Your task to perform on an android device: turn off picture-in-picture Image 0: 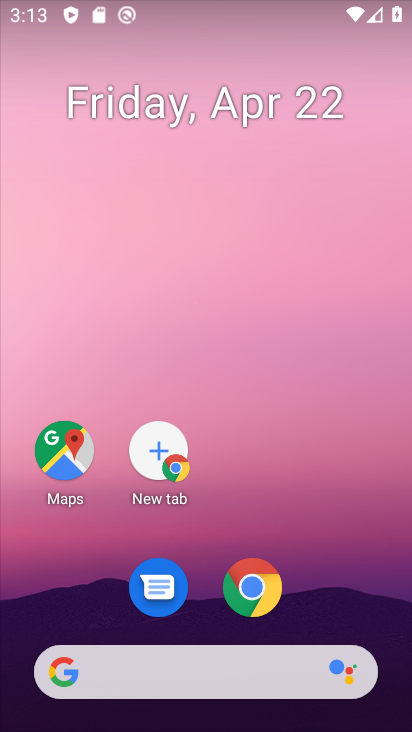
Step 0: click (64, 438)
Your task to perform on an android device: turn off picture-in-picture Image 1: 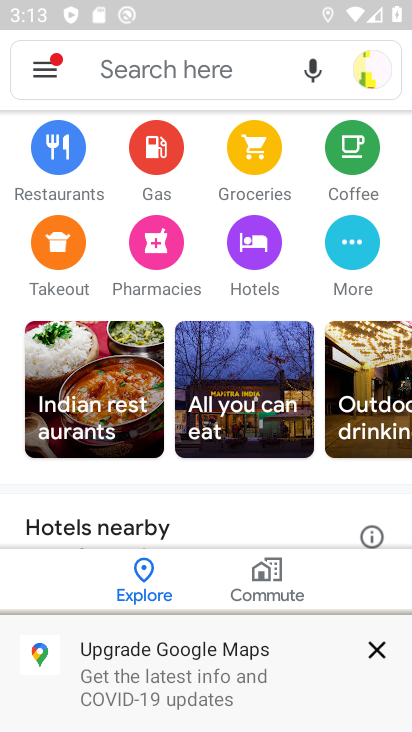
Step 1: press home button
Your task to perform on an android device: turn off picture-in-picture Image 2: 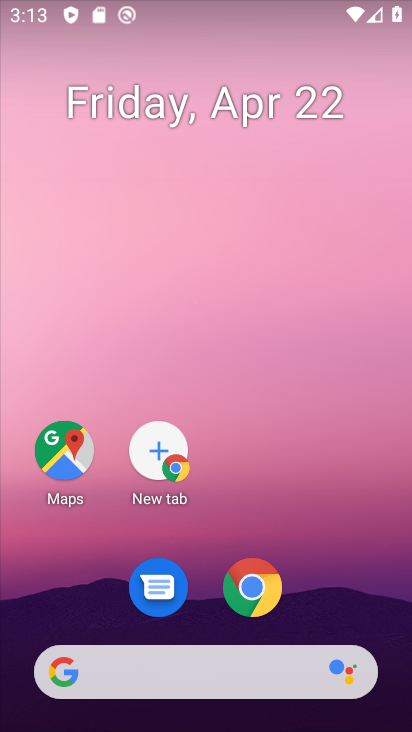
Step 2: click (255, 585)
Your task to perform on an android device: turn off picture-in-picture Image 3: 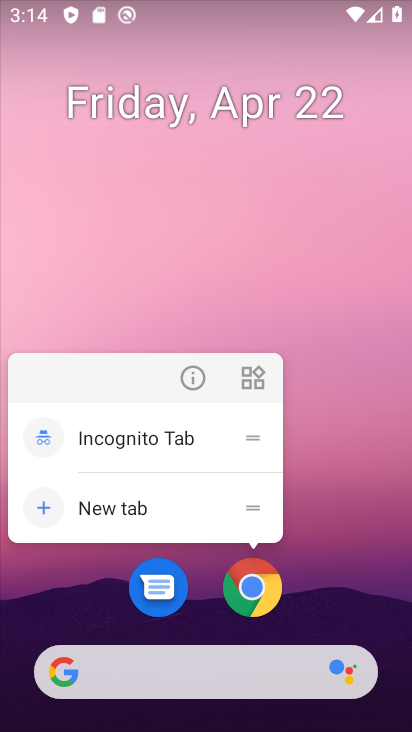
Step 3: click (186, 387)
Your task to perform on an android device: turn off picture-in-picture Image 4: 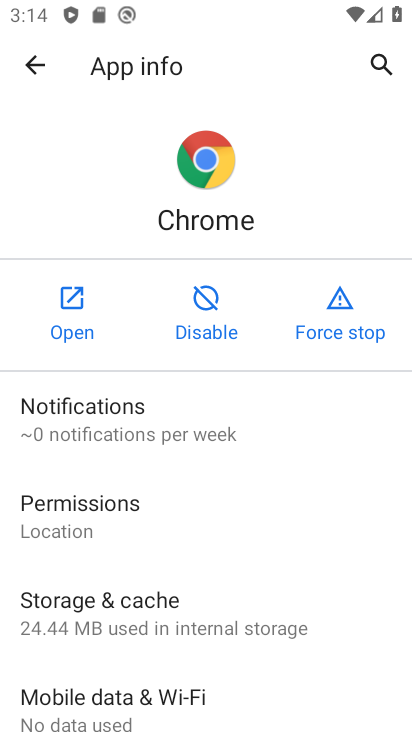
Step 4: drag from (137, 679) to (176, 226)
Your task to perform on an android device: turn off picture-in-picture Image 5: 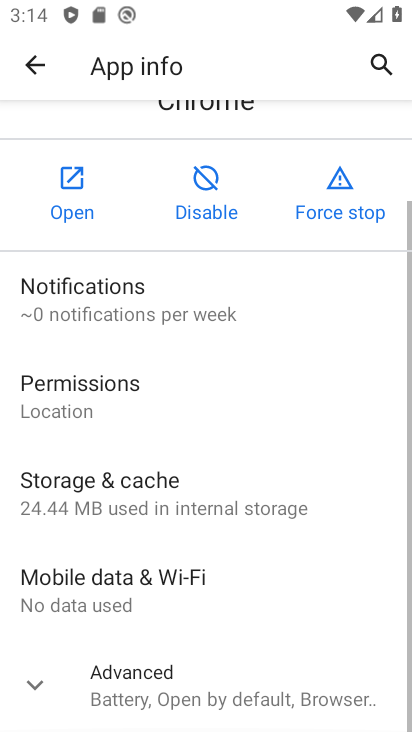
Step 5: drag from (194, 644) to (207, 183)
Your task to perform on an android device: turn off picture-in-picture Image 6: 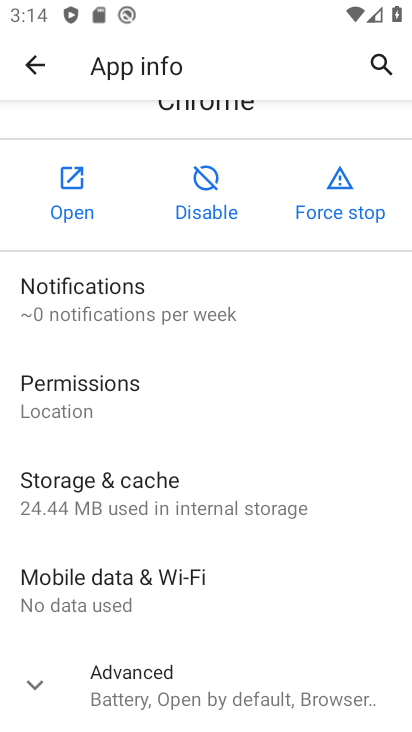
Step 6: click (172, 688)
Your task to perform on an android device: turn off picture-in-picture Image 7: 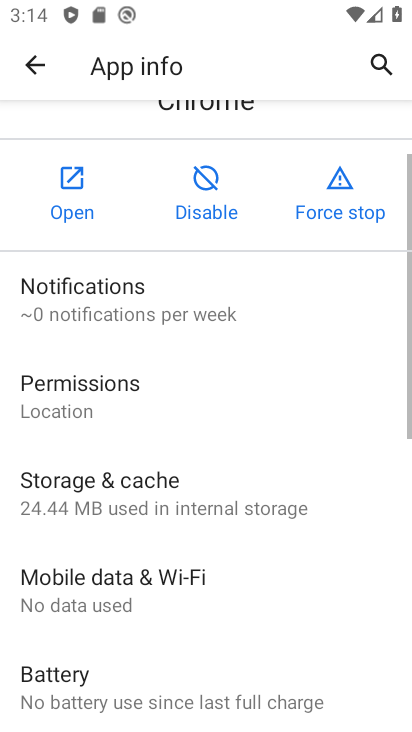
Step 7: drag from (178, 677) to (193, 251)
Your task to perform on an android device: turn off picture-in-picture Image 8: 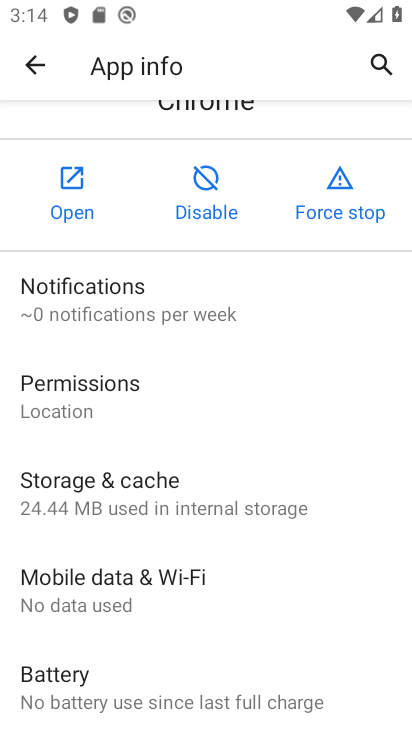
Step 8: drag from (161, 617) to (153, 143)
Your task to perform on an android device: turn off picture-in-picture Image 9: 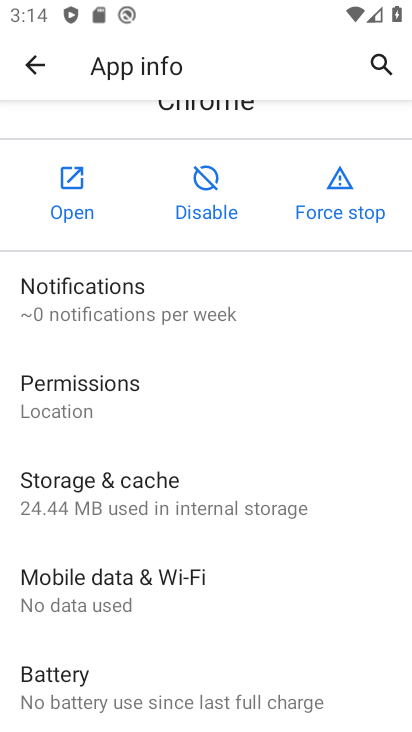
Step 9: drag from (264, 629) to (223, 130)
Your task to perform on an android device: turn off picture-in-picture Image 10: 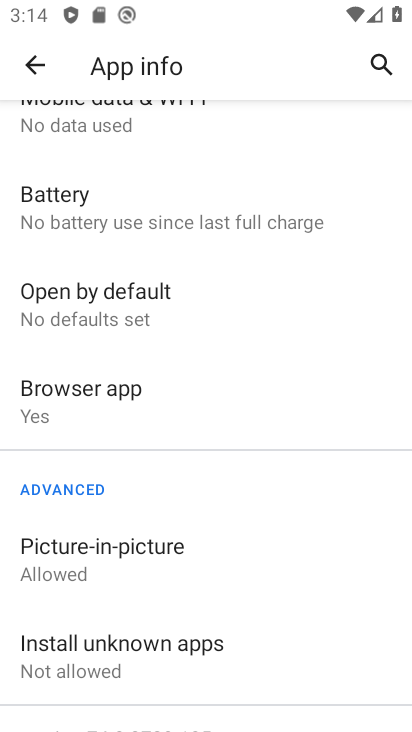
Step 10: click (223, 574)
Your task to perform on an android device: turn off picture-in-picture Image 11: 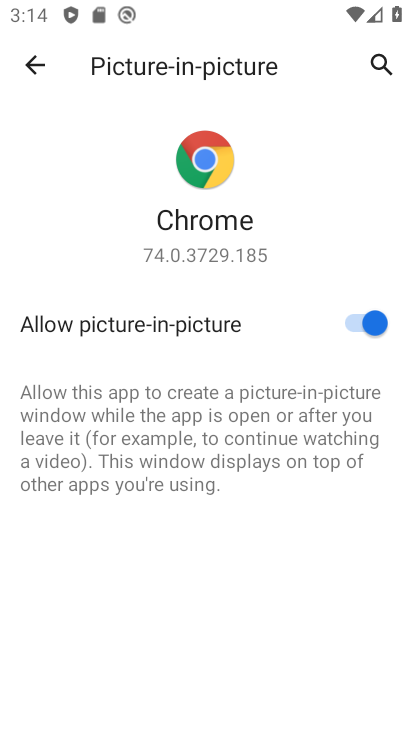
Step 11: click (372, 328)
Your task to perform on an android device: turn off picture-in-picture Image 12: 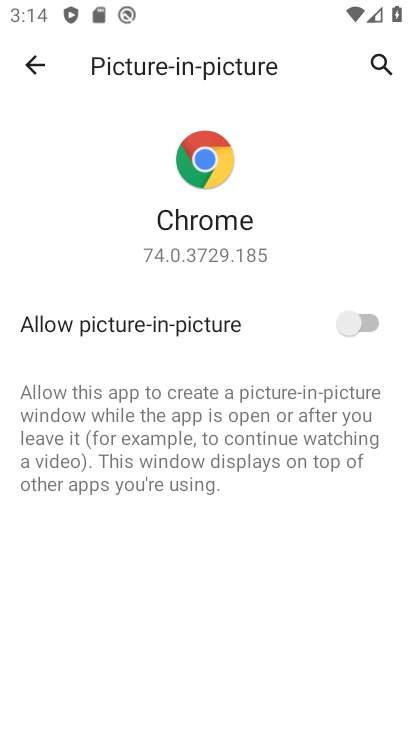
Step 12: task complete